Your task to perform on an android device: add a contact in the contacts app Image 0: 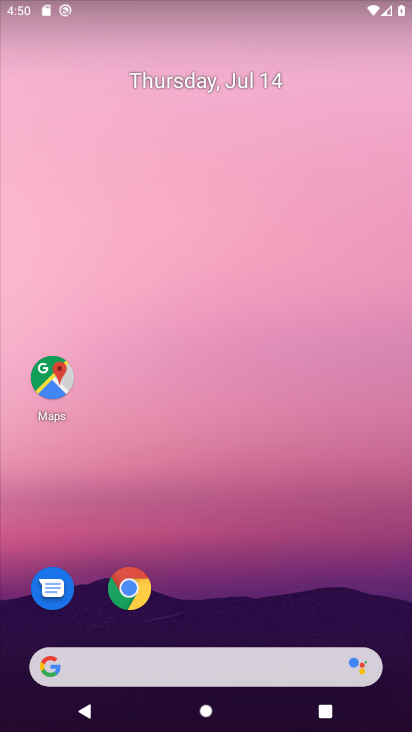
Step 0: drag from (263, 632) to (297, 80)
Your task to perform on an android device: add a contact in the contacts app Image 1: 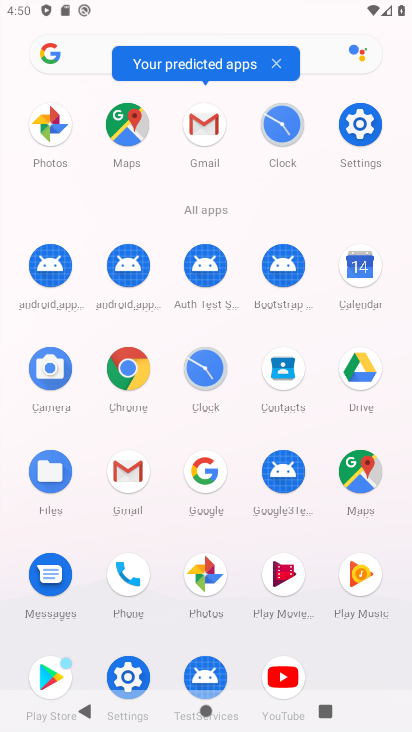
Step 1: click (280, 376)
Your task to perform on an android device: add a contact in the contacts app Image 2: 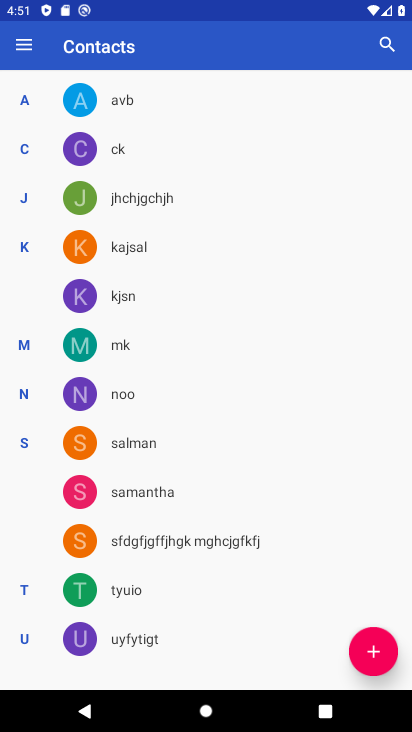
Step 2: click (386, 645)
Your task to perform on an android device: add a contact in the contacts app Image 3: 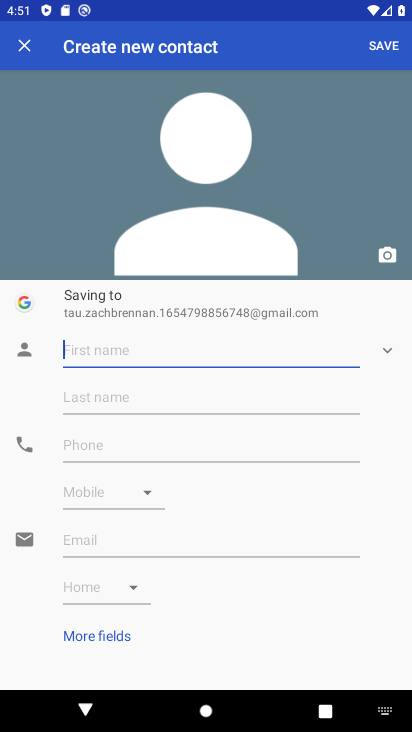
Step 3: type ""
Your task to perform on an android device: add a contact in the contacts app Image 4: 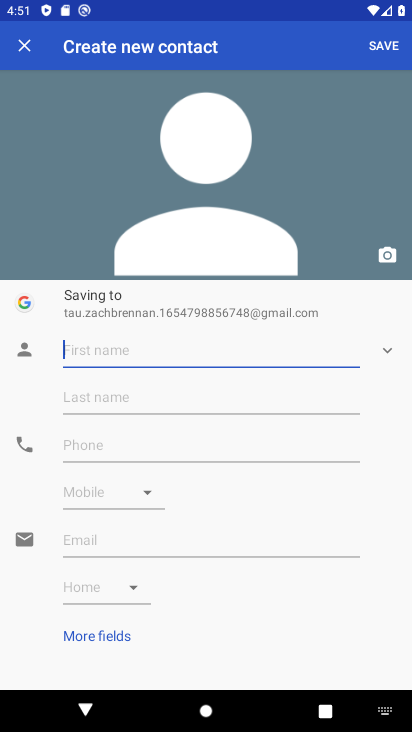
Step 4: type "yokon "
Your task to perform on an android device: add a contact in the contacts app Image 5: 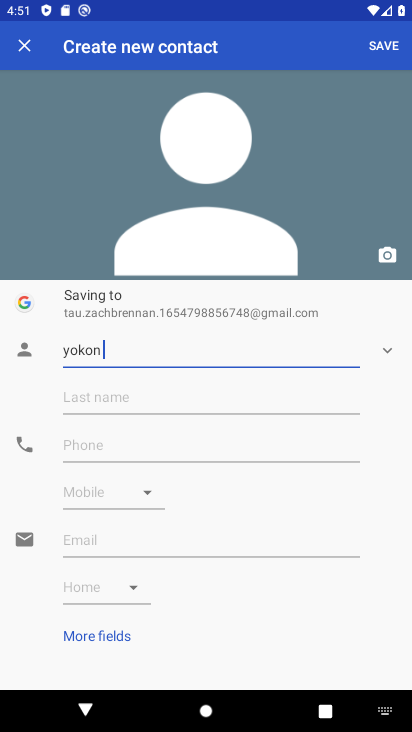
Step 5: click (119, 456)
Your task to perform on an android device: add a contact in the contacts app Image 6: 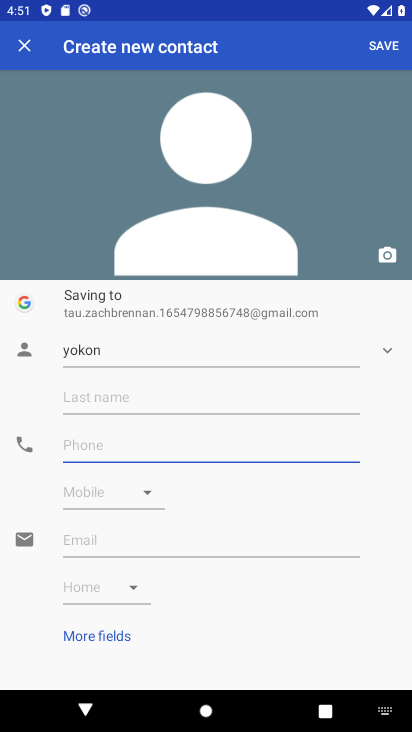
Step 6: type "9898998989"
Your task to perform on an android device: add a contact in the contacts app Image 7: 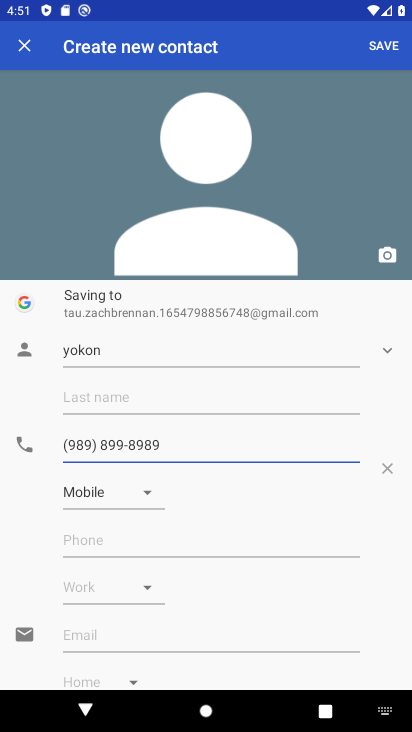
Step 7: click (365, 43)
Your task to perform on an android device: add a contact in the contacts app Image 8: 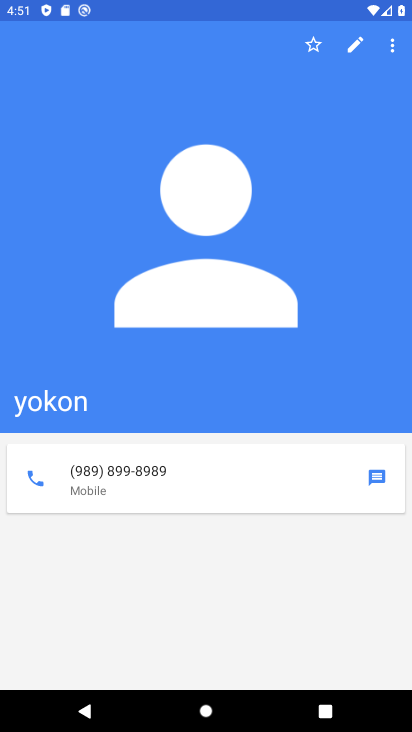
Step 8: task complete